Your task to perform on an android device: Open calendar and show me the first week of next month Image 0: 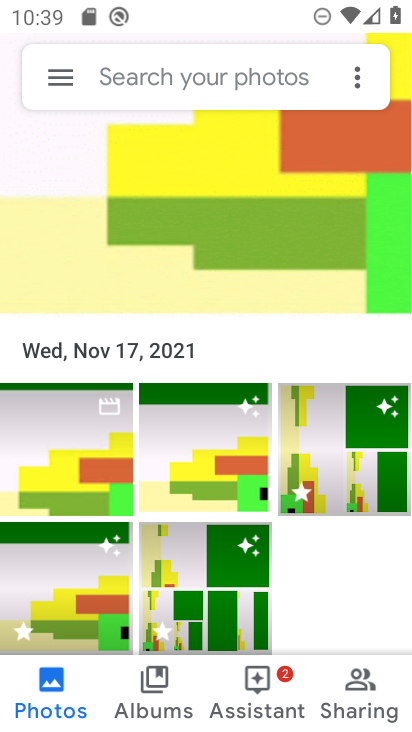
Step 0: press home button
Your task to perform on an android device: Open calendar and show me the first week of next month Image 1: 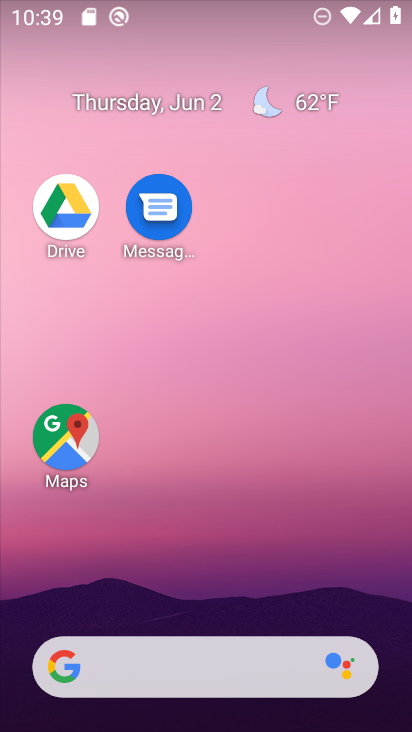
Step 1: drag from (214, 626) to (214, 17)
Your task to perform on an android device: Open calendar and show me the first week of next month Image 2: 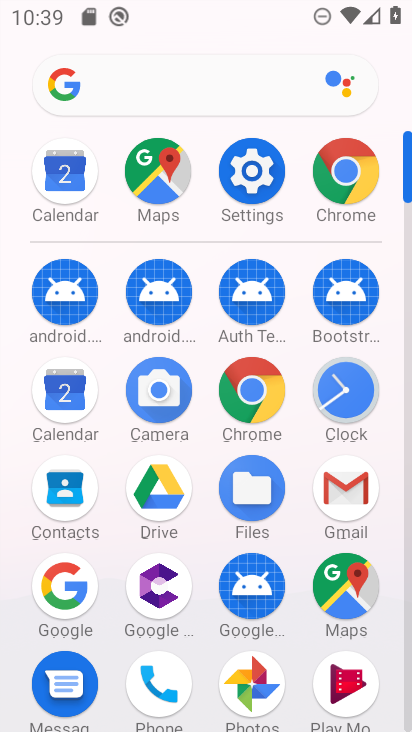
Step 2: click (44, 408)
Your task to perform on an android device: Open calendar and show me the first week of next month Image 3: 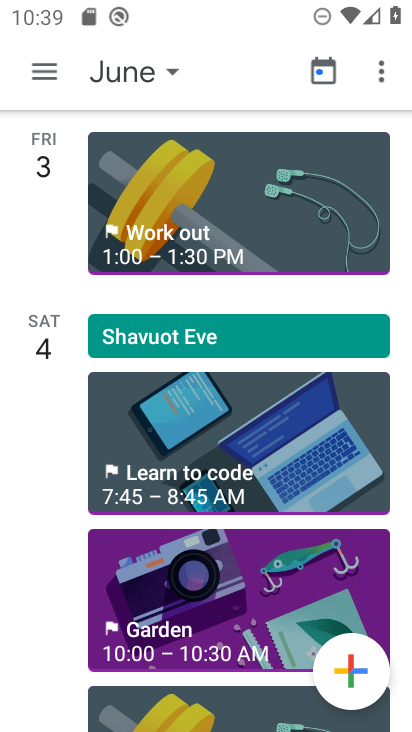
Step 3: click (51, 64)
Your task to perform on an android device: Open calendar and show me the first week of next month Image 4: 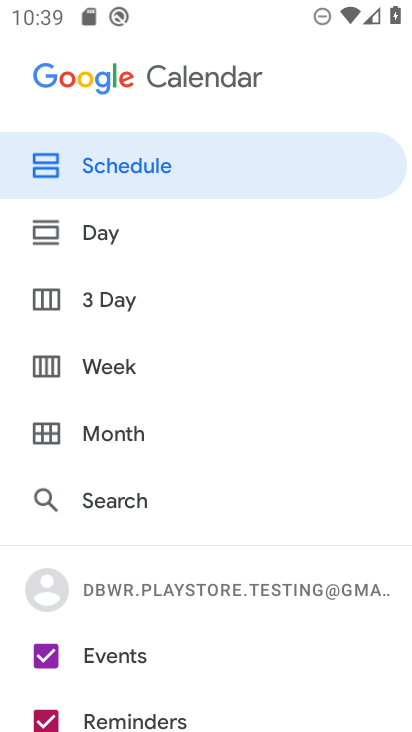
Step 4: click (139, 376)
Your task to perform on an android device: Open calendar and show me the first week of next month Image 5: 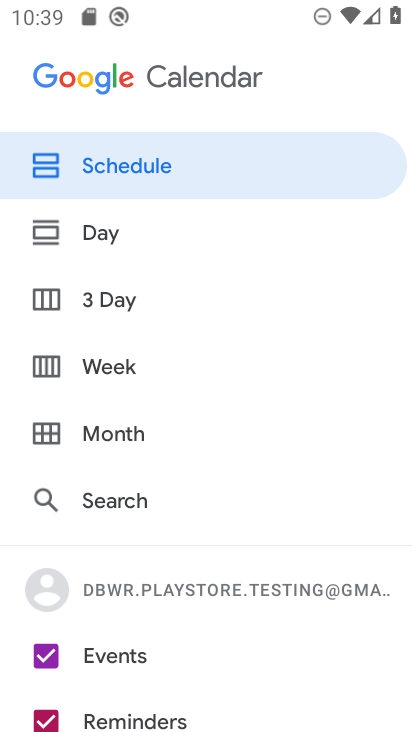
Step 5: click (77, 372)
Your task to perform on an android device: Open calendar and show me the first week of next month Image 6: 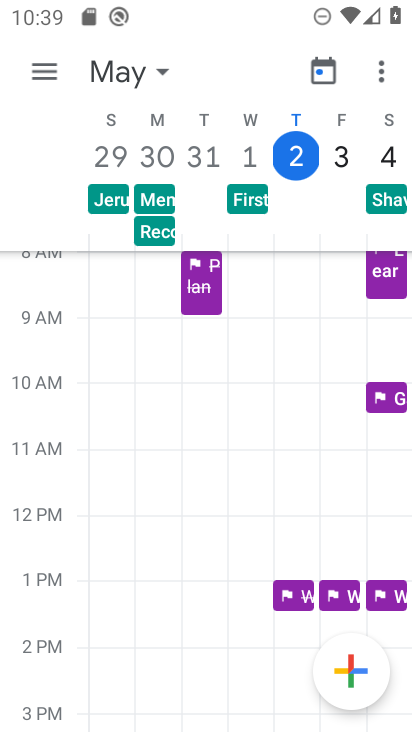
Step 6: task complete